Your task to perform on an android device: Open privacy settings Image 0: 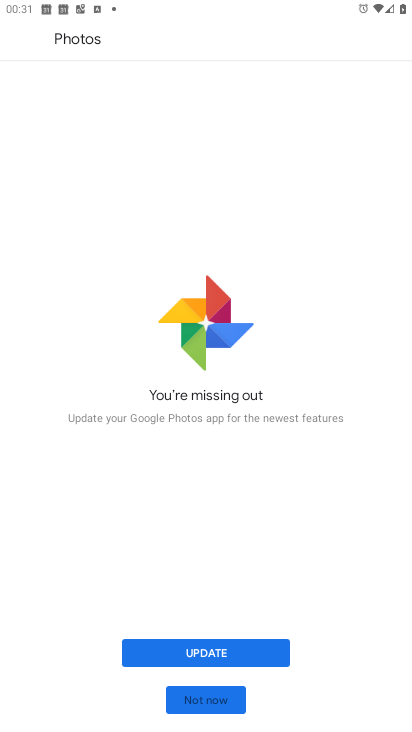
Step 0: press home button
Your task to perform on an android device: Open privacy settings Image 1: 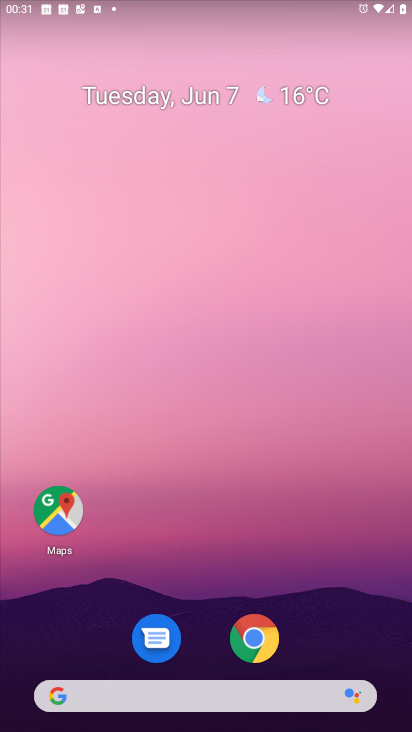
Step 1: drag from (348, 704) to (312, 153)
Your task to perform on an android device: Open privacy settings Image 2: 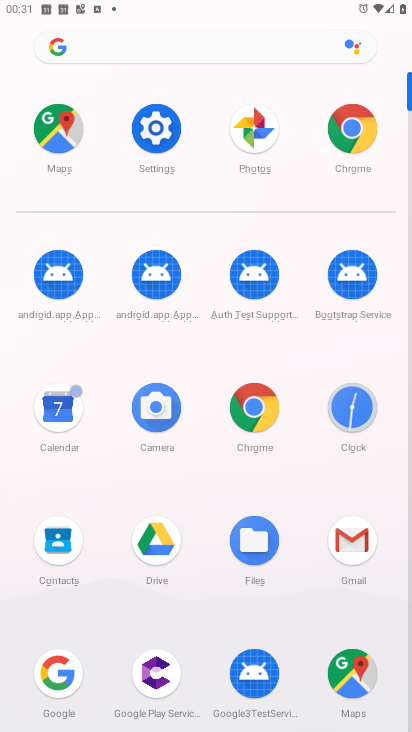
Step 2: click (154, 109)
Your task to perform on an android device: Open privacy settings Image 3: 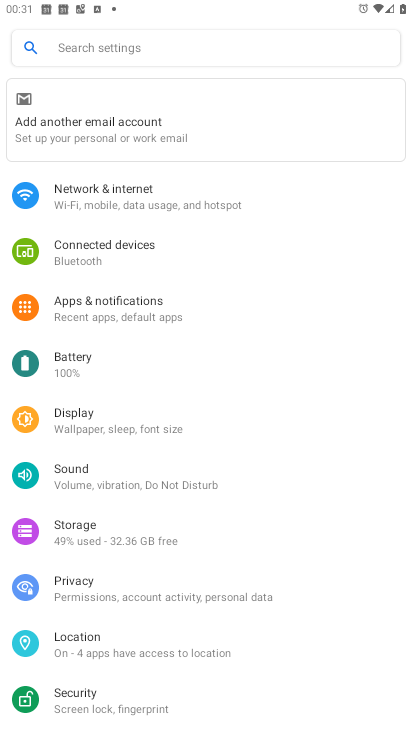
Step 3: click (110, 578)
Your task to perform on an android device: Open privacy settings Image 4: 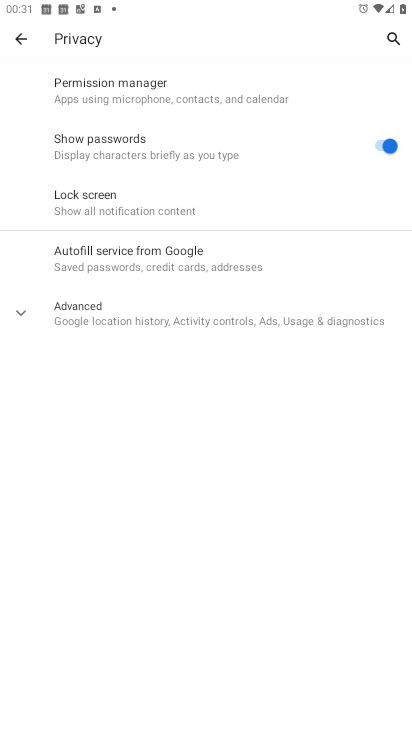
Step 4: task complete